Your task to perform on an android device: change text size in settings app Image 0: 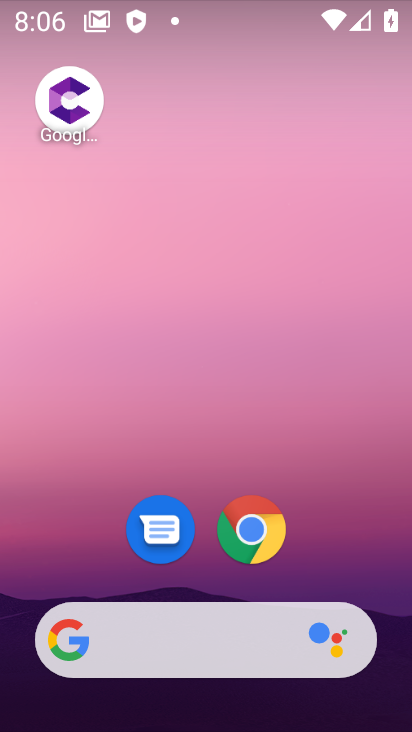
Step 0: drag from (320, 573) to (198, 71)
Your task to perform on an android device: change text size in settings app Image 1: 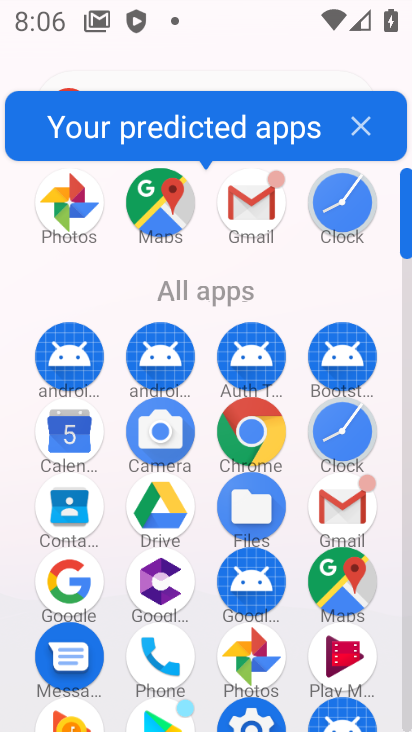
Step 1: click (250, 706)
Your task to perform on an android device: change text size in settings app Image 2: 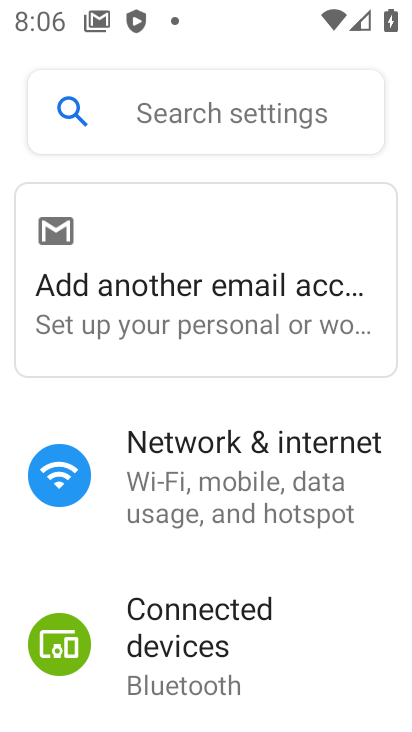
Step 2: drag from (230, 545) to (202, 293)
Your task to perform on an android device: change text size in settings app Image 3: 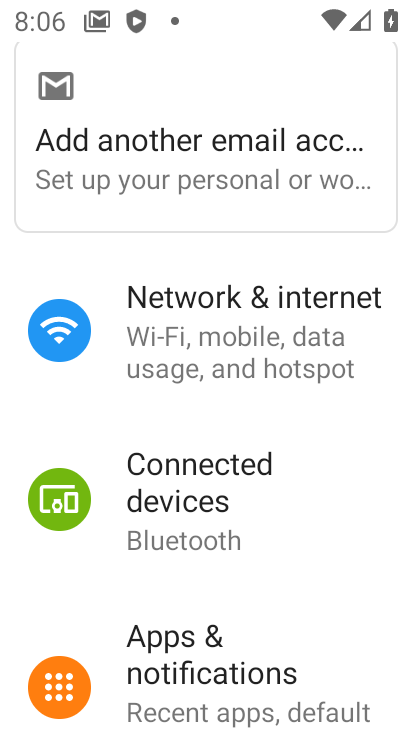
Step 3: drag from (225, 535) to (232, 205)
Your task to perform on an android device: change text size in settings app Image 4: 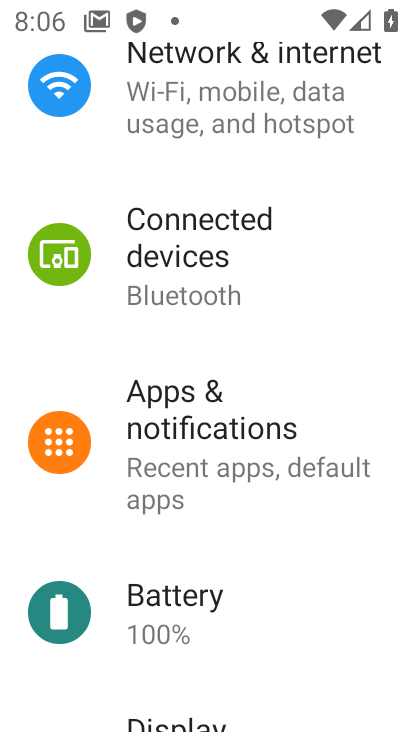
Step 4: drag from (210, 617) to (211, 298)
Your task to perform on an android device: change text size in settings app Image 5: 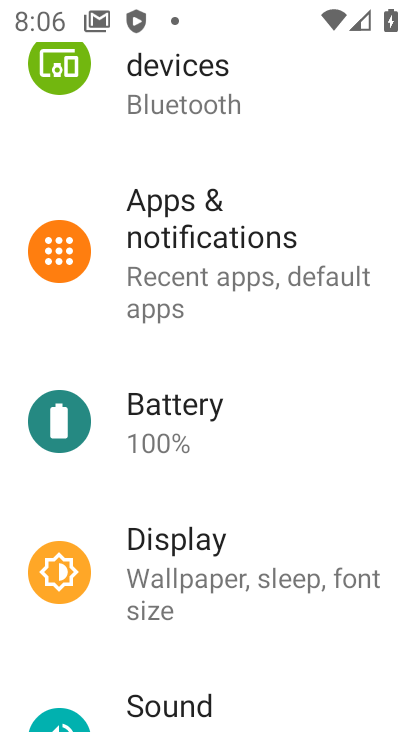
Step 5: click (191, 558)
Your task to perform on an android device: change text size in settings app Image 6: 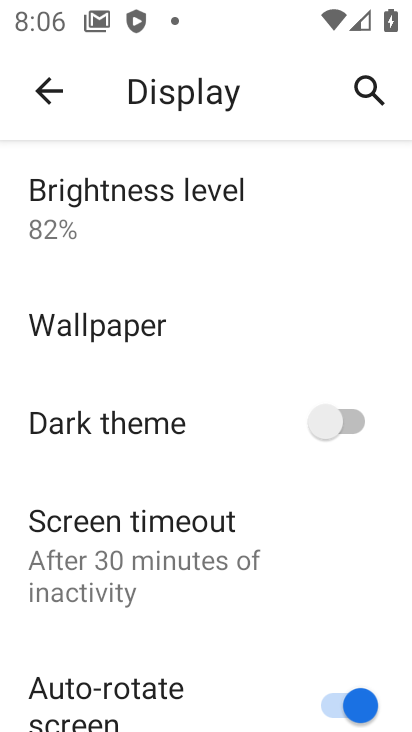
Step 6: drag from (215, 642) to (204, 367)
Your task to perform on an android device: change text size in settings app Image 7: 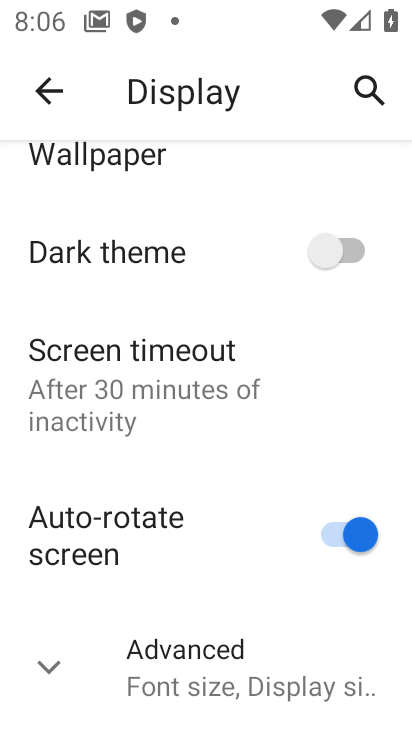
Step 7: click (149, 668)
Your task to perform on an android device: change text size in settings app Image 8: 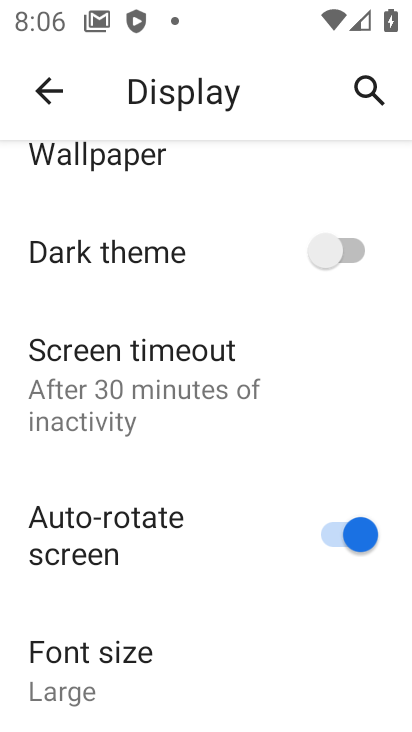
Step 8: click (86, 658)
Your task to perform on an android device: change text size in settings app Image 9: 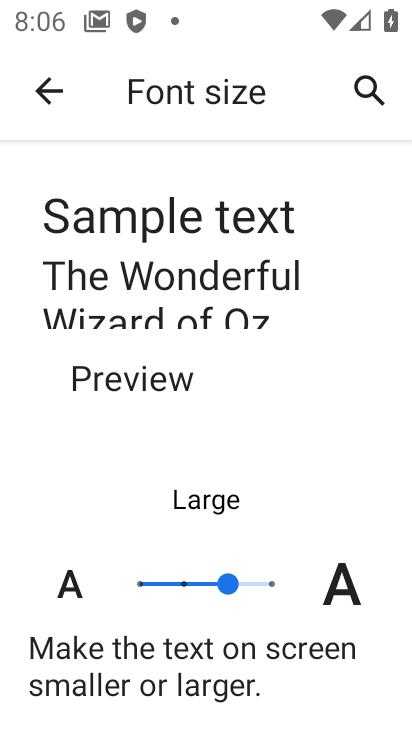
Step 9: click (173, 575)
Your task to perform on an android device: change text size in settings app Image 10: 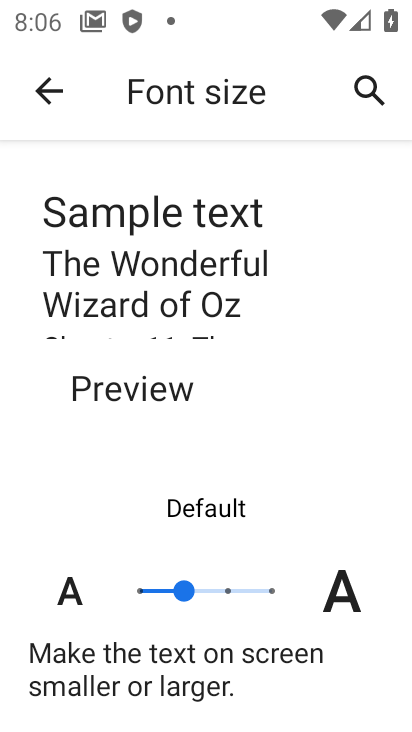
Step 10: task complete